Your task to perform on an android device: delete location history Image 0: 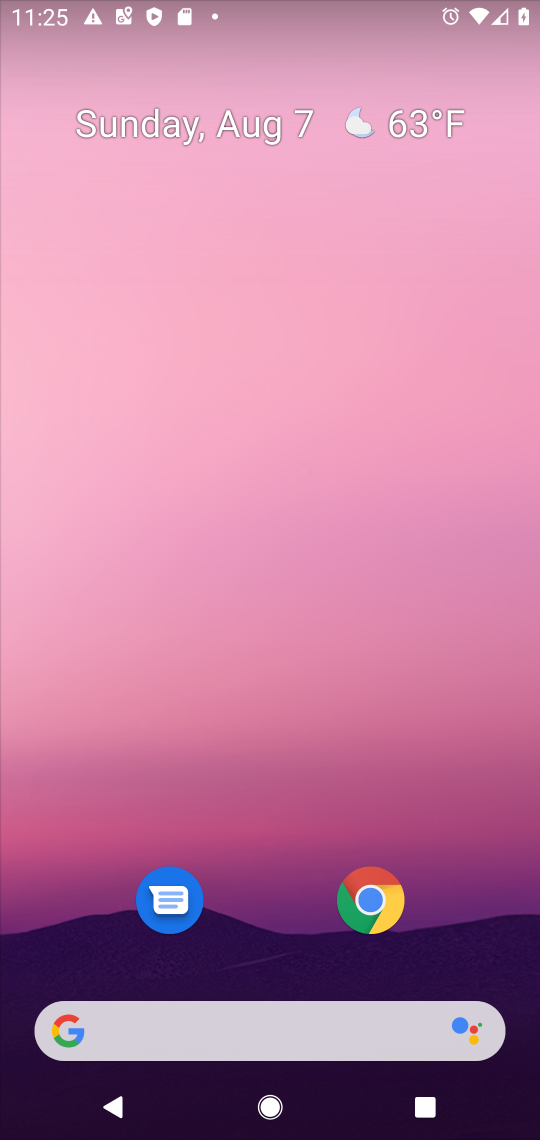
Step 0: press home button
Your task to perform on an android device: delete location history Image 1: 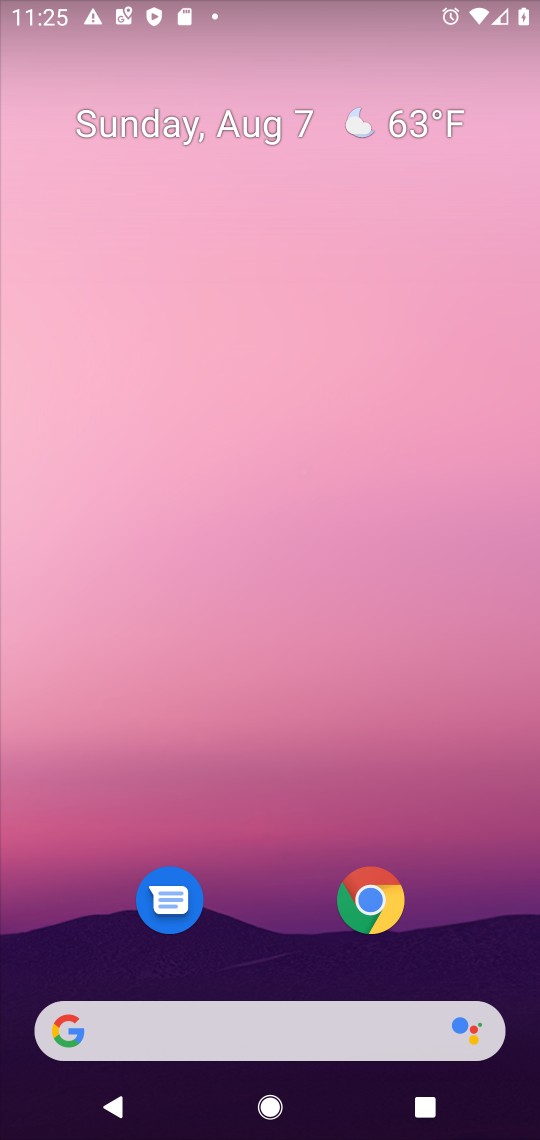
Step 1: drag from (281, 957) to (279, 136)
Your task to perform on an android device: delete location history Image 2: 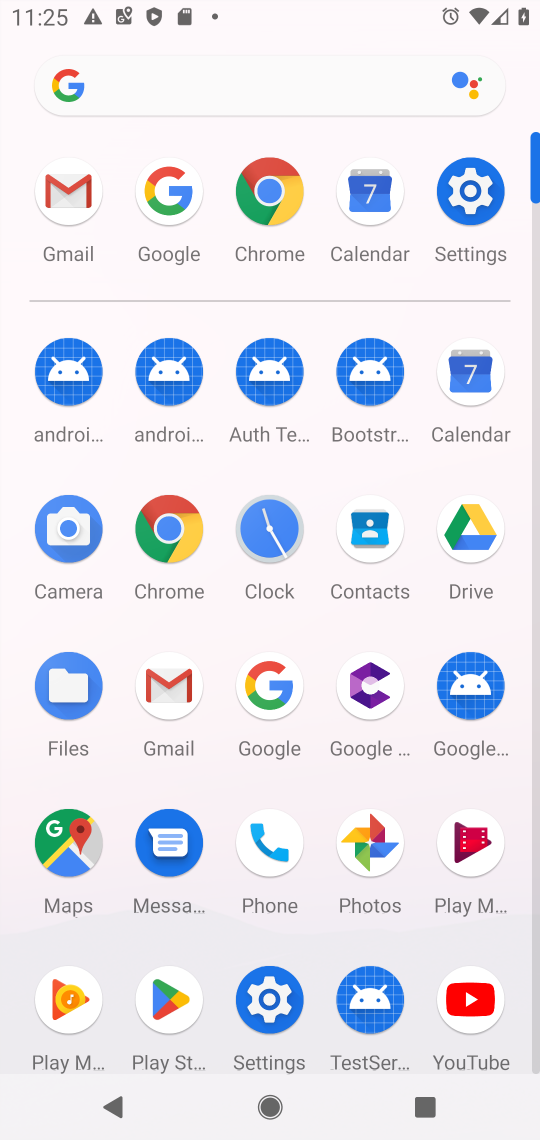
Step 2: click (67, 840)
Your task to perform on an android device: delete location history Image 3: 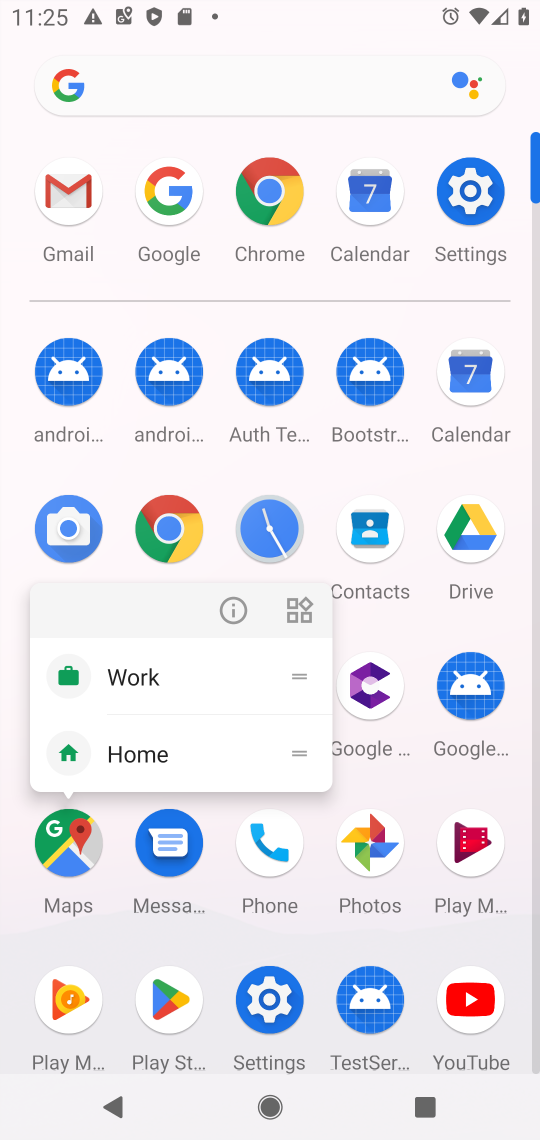
Step 3: click (65, 841)
Your task to perform on an android device: delete location history Image 4: 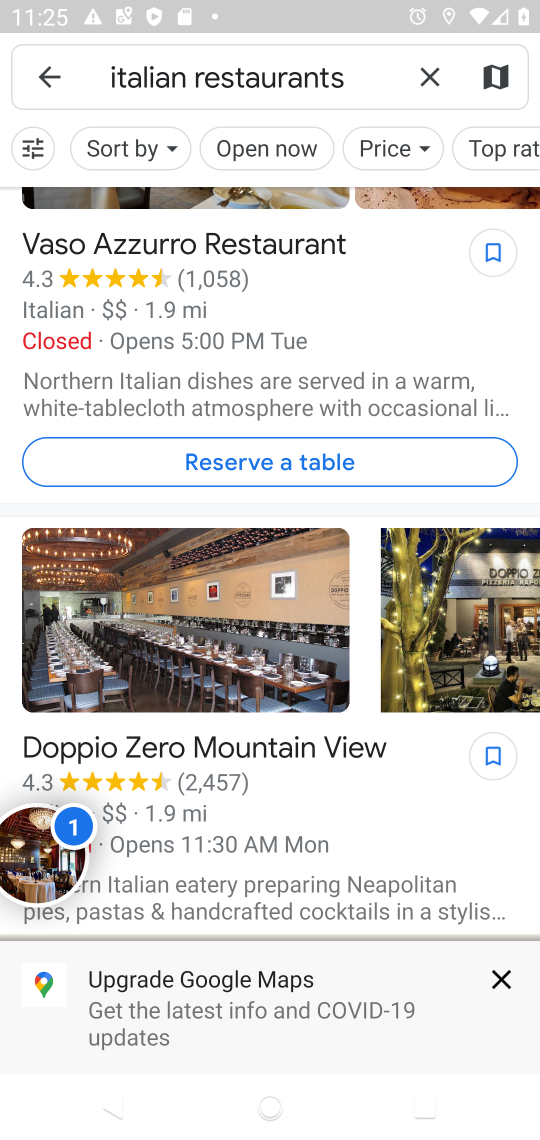
Step 4: click (59, 73)
Your task to perform on an android device: delete location history Image 5: 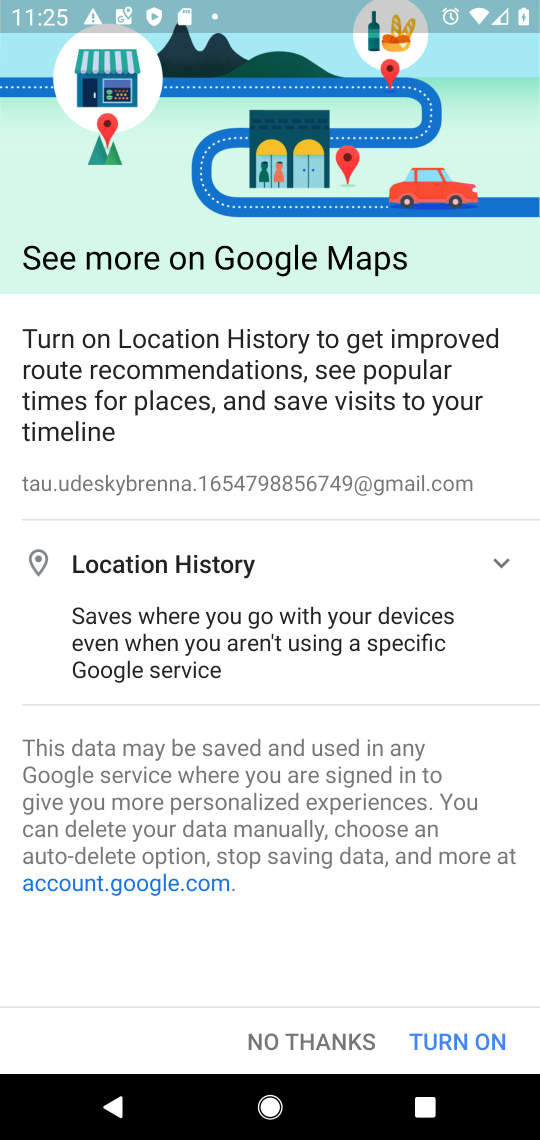
Step 5: click (465, 1028)
Your task to perform on an android device: delete location history Image 6: 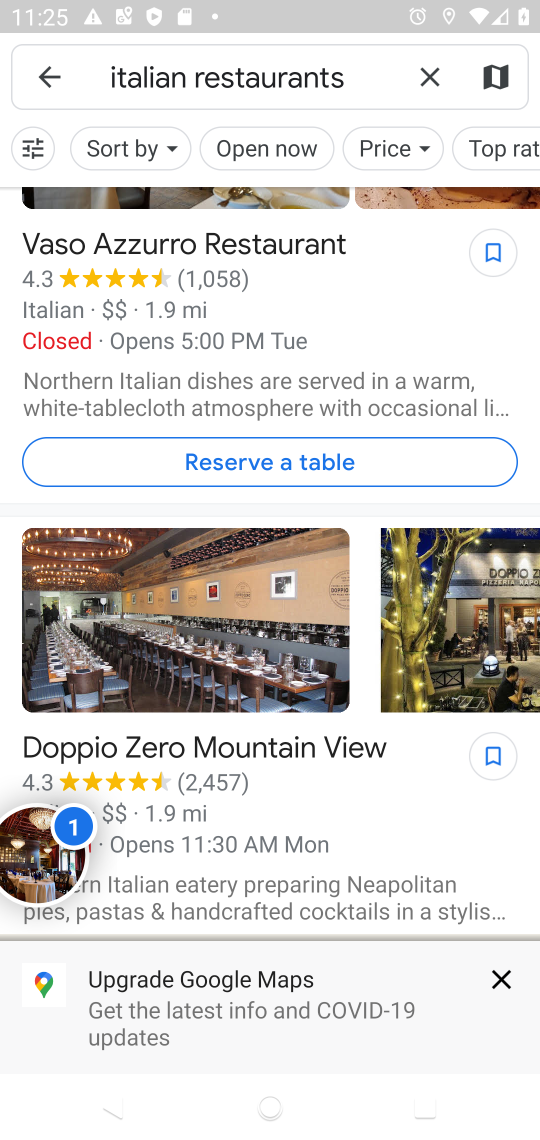
Step 6: click (43, 64)
Your task to perform on an android device: delete location history Image 7: 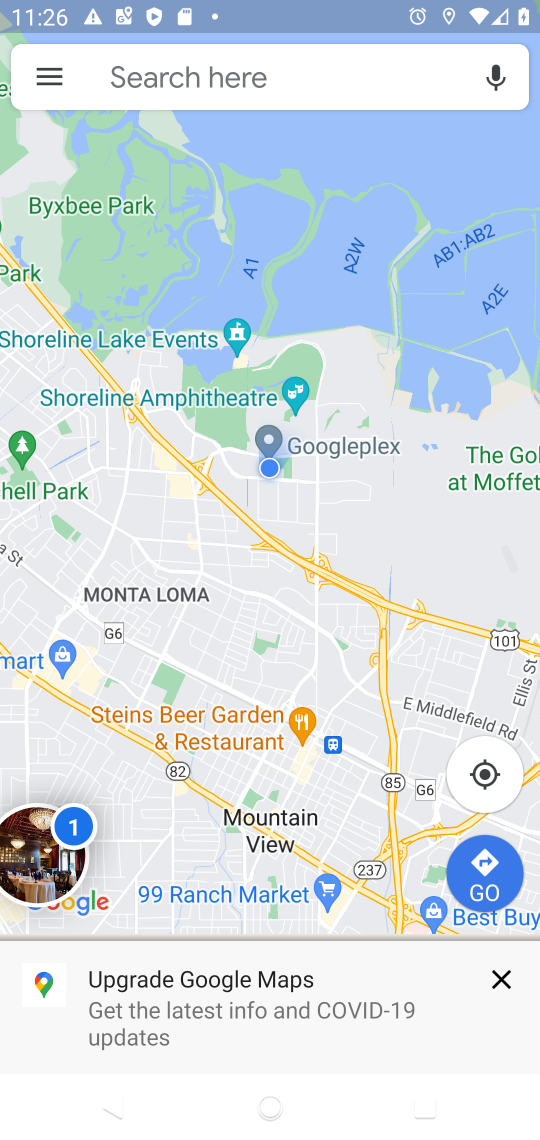
Step 7: click (46, 85)
Your task to perform on an android device: delete location history Image 8: 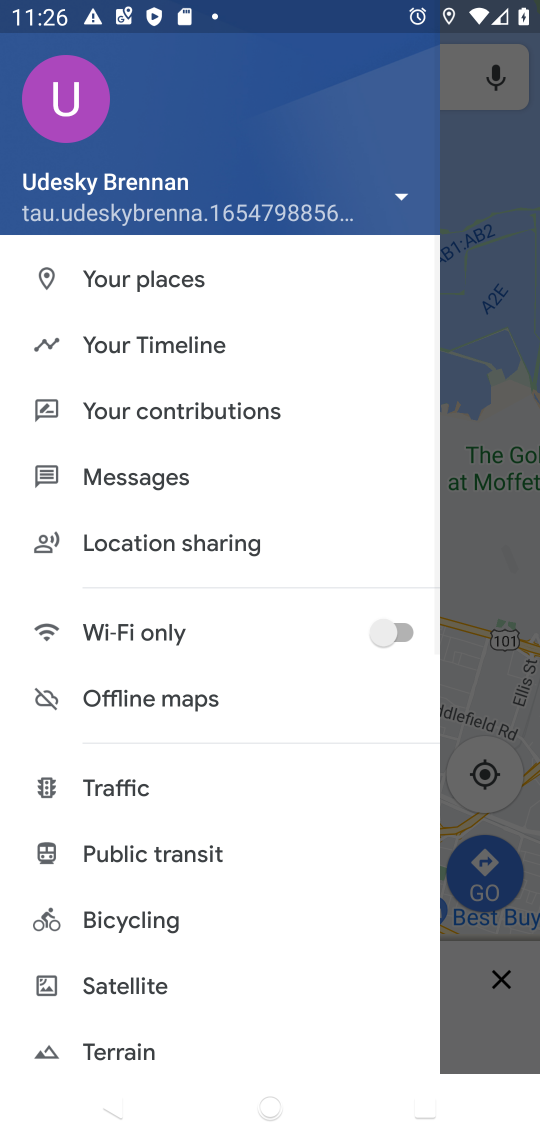
Step 8: drag from (211, 1030) to (227, 260)
Your task to perform on an android device: delete location history Image 9: 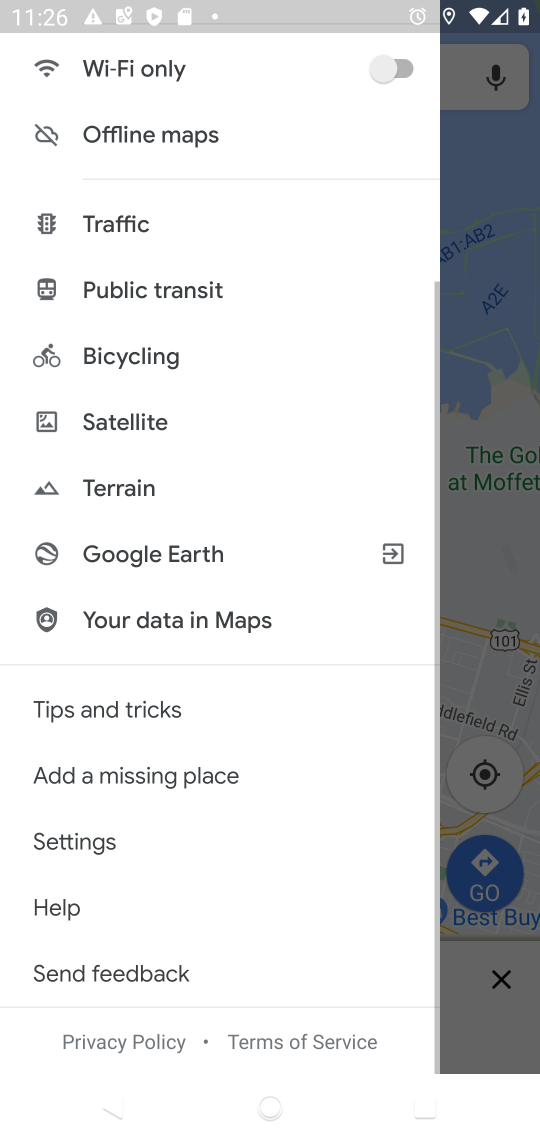
Step 9: drag from (163, 182) to (199, 939)
Your task to perform on an android device: delete location history Image 10: 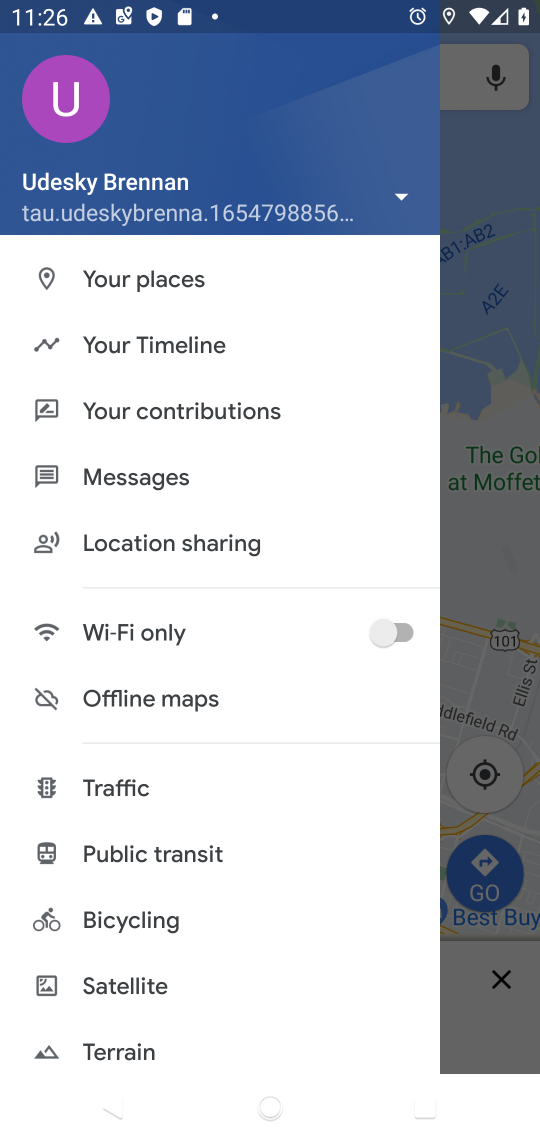
Step 10: click (192, 341)
Your task to perform on an android device: delete location history Image 11: 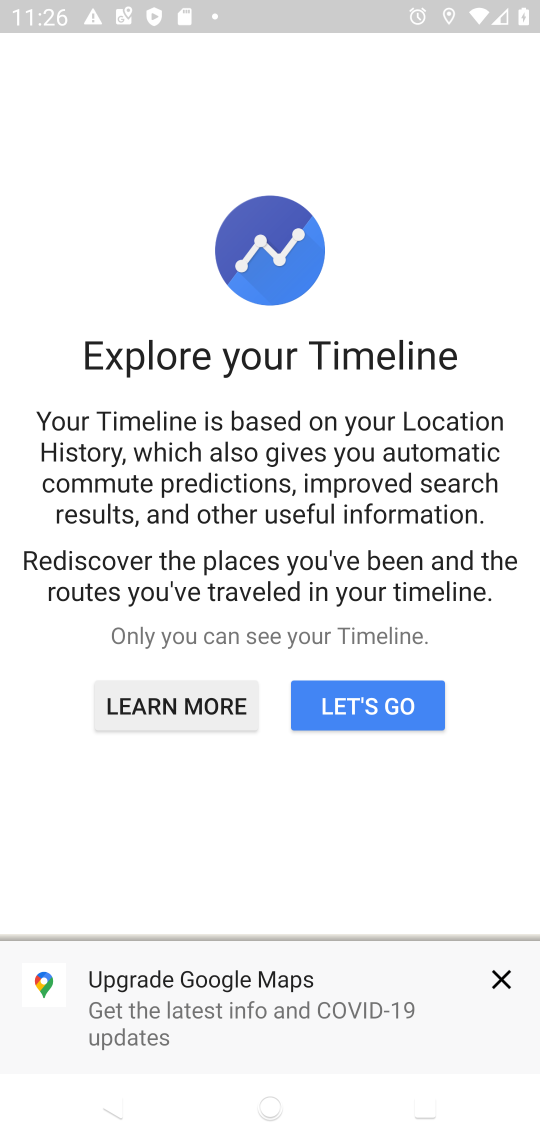
Step 11: click (347, 705)
Your task to perform on an android device: delete location history Image 12: 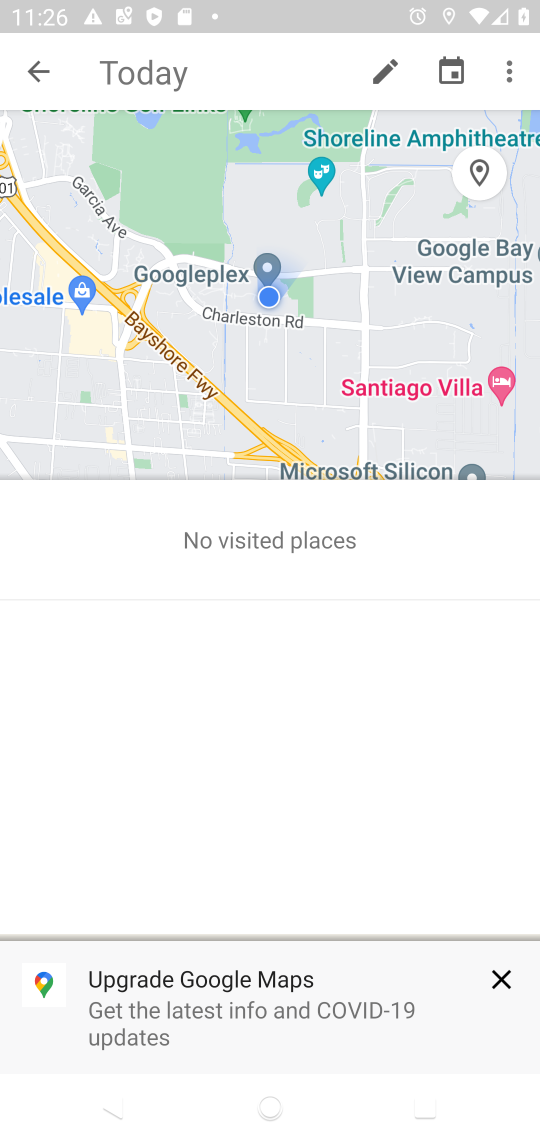
Step 12: click (513, 72)
Your task to perform on an android device: delete location history Image 13: 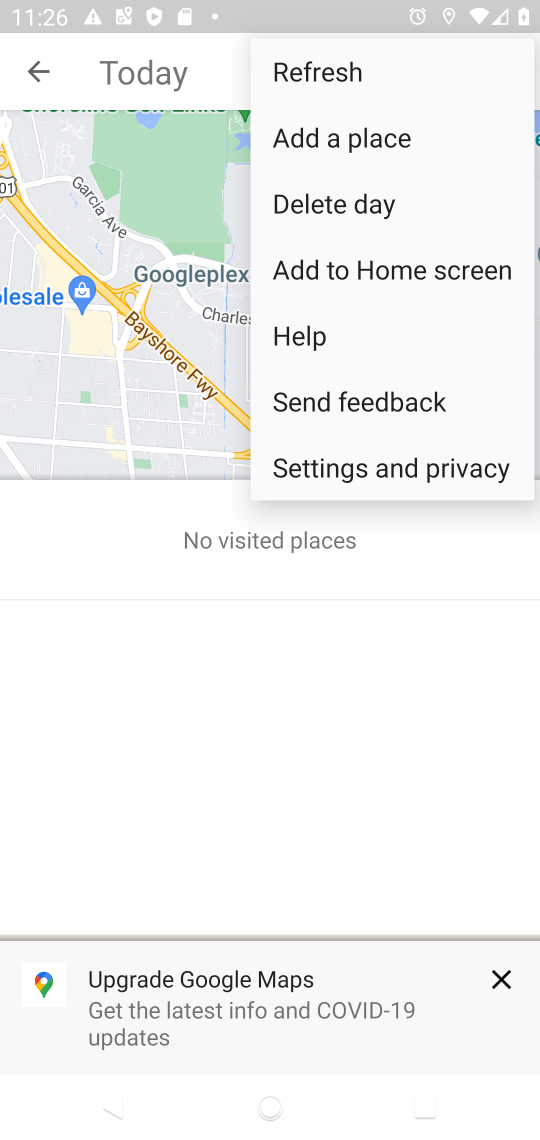
Step 13: click (453, 478)
Your task to perform on an android device: delete location history Image 14: 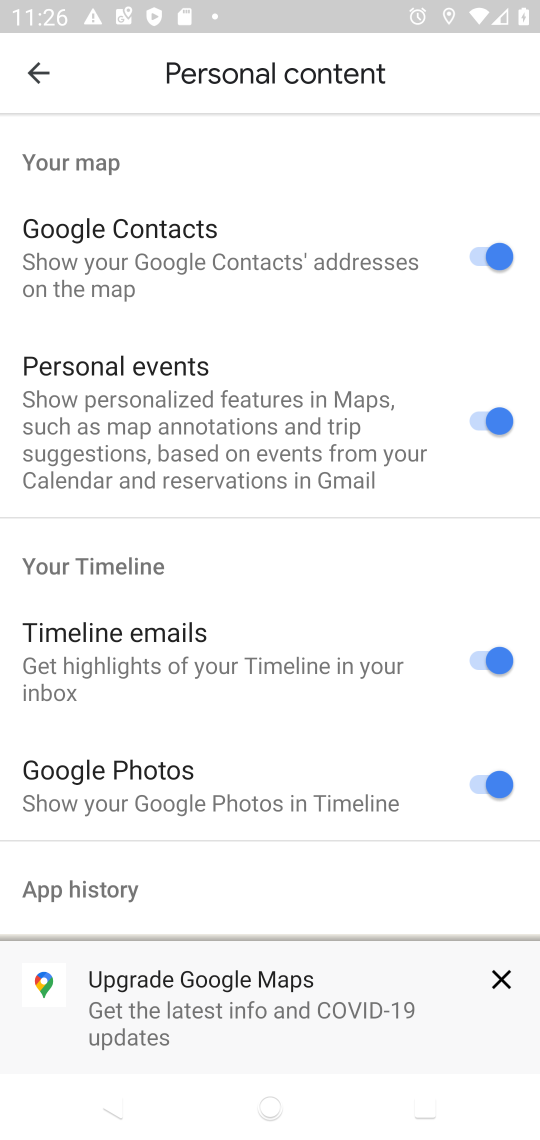
Step 14: drag from (288, 844) to (293, 238)
Your task to perform on an android device: delete location history Image 15: 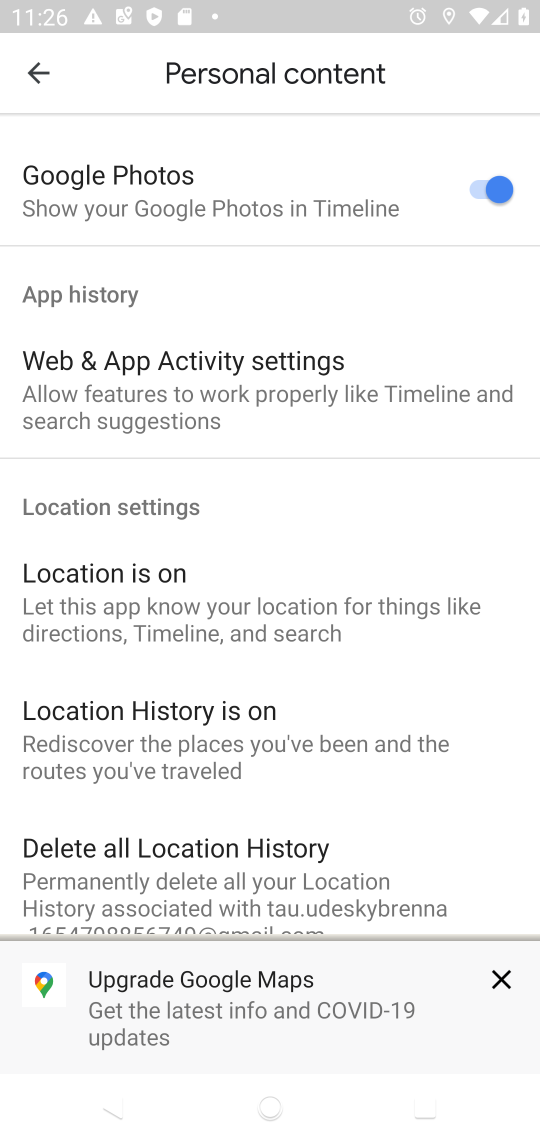
Step 15: click (263, 859)
Your task to perform on an android device: delete location history Image 16: 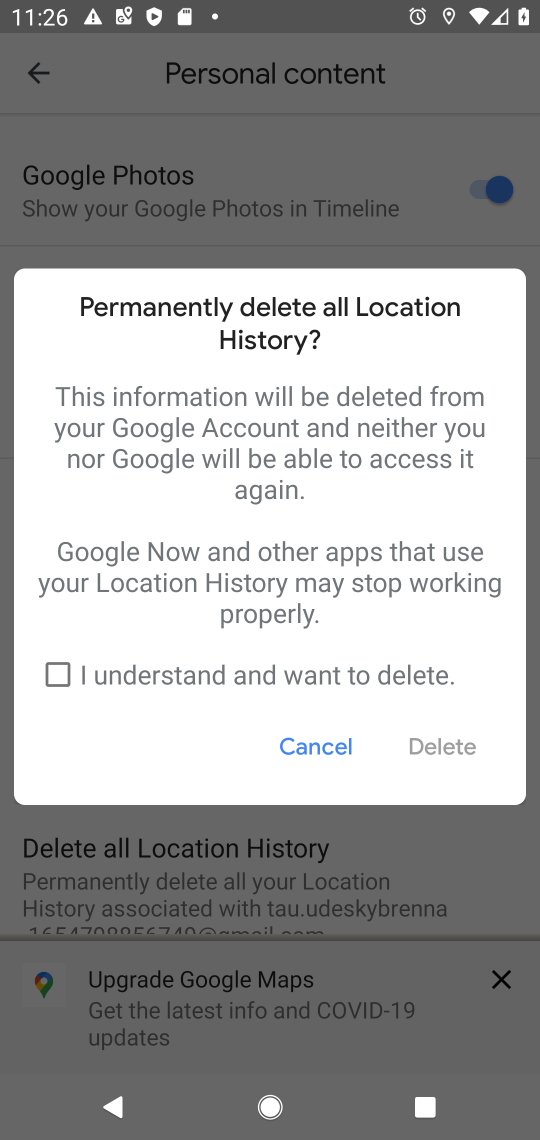
Step 16: click (61, 671)
Your task to perform on an android device: delete location history Image 17: 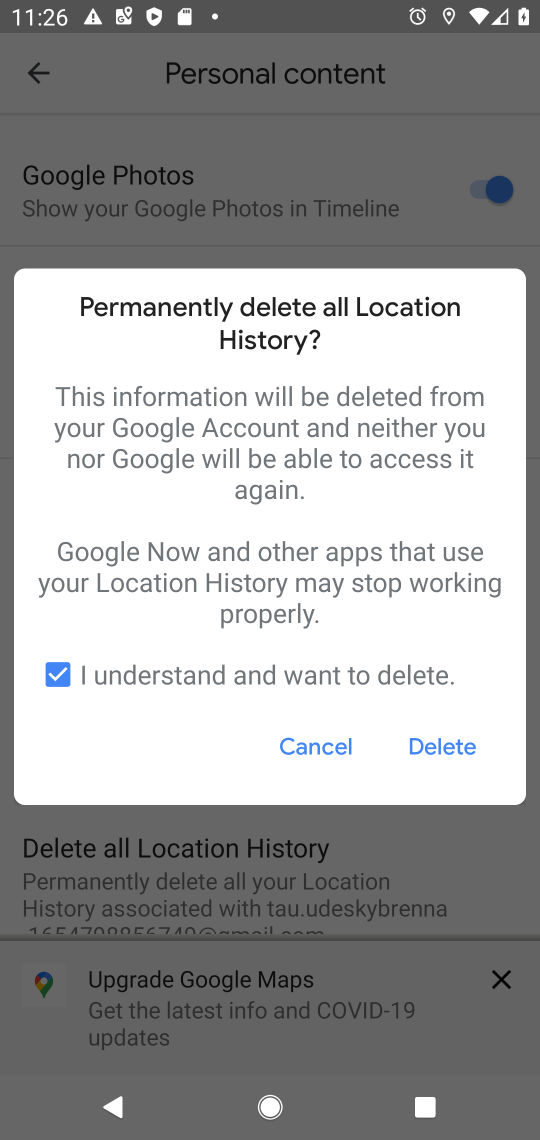
Step 17: click (448, 747)
Your task to perform on an android device: delete location history Image 18: 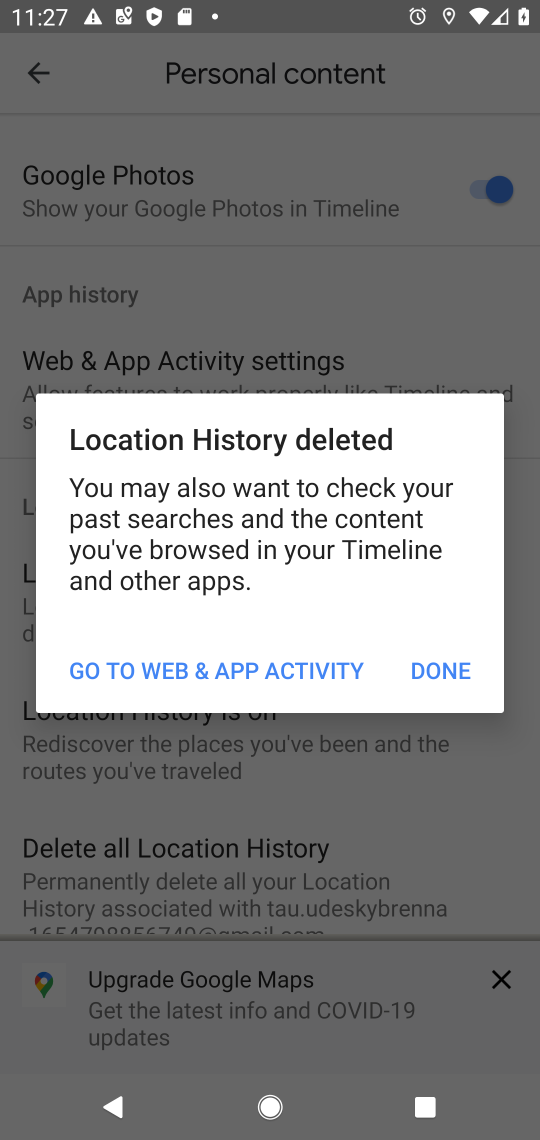
Step 18: click (439, 669)
Your task to perform on an android device: delete location history Image 19: 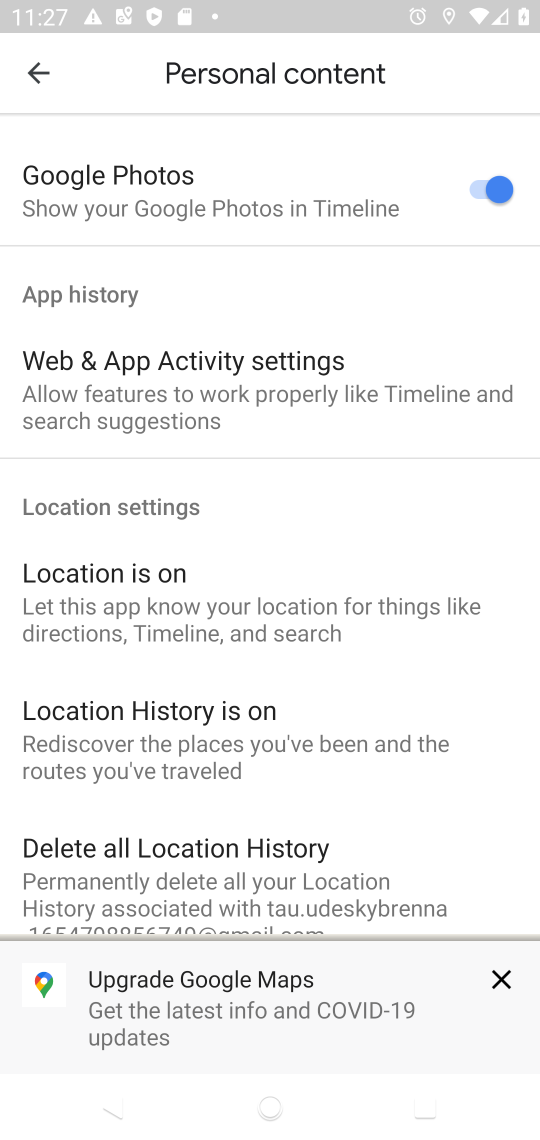
Step 19: task complete